Your task to perform on an android device: What's on my calendar today? Image 0: 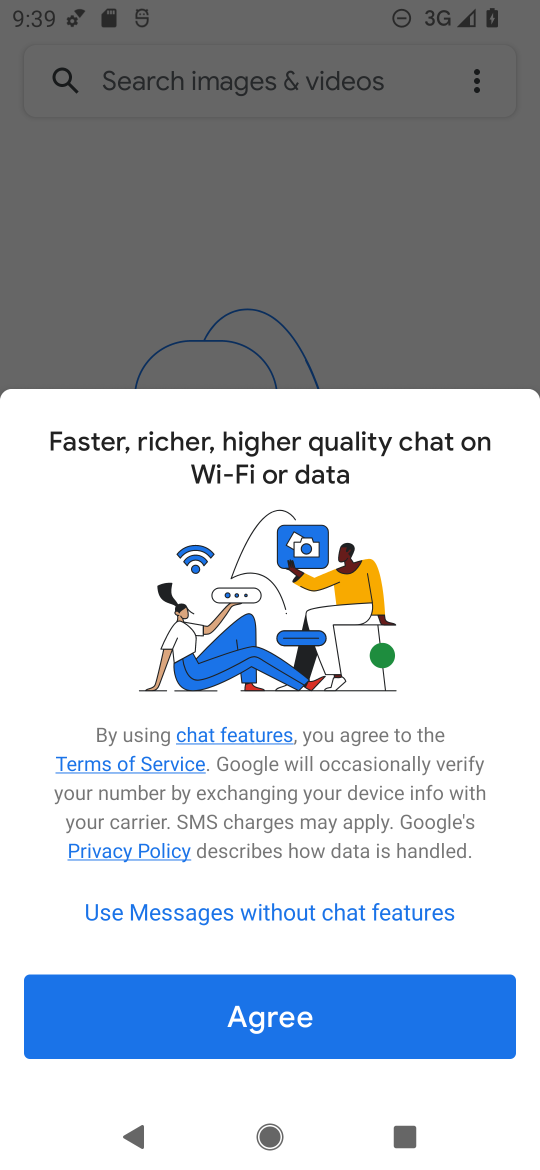
Step 0: press home button
Your task to perform on an android device: What's on my calendar today? Image 1: 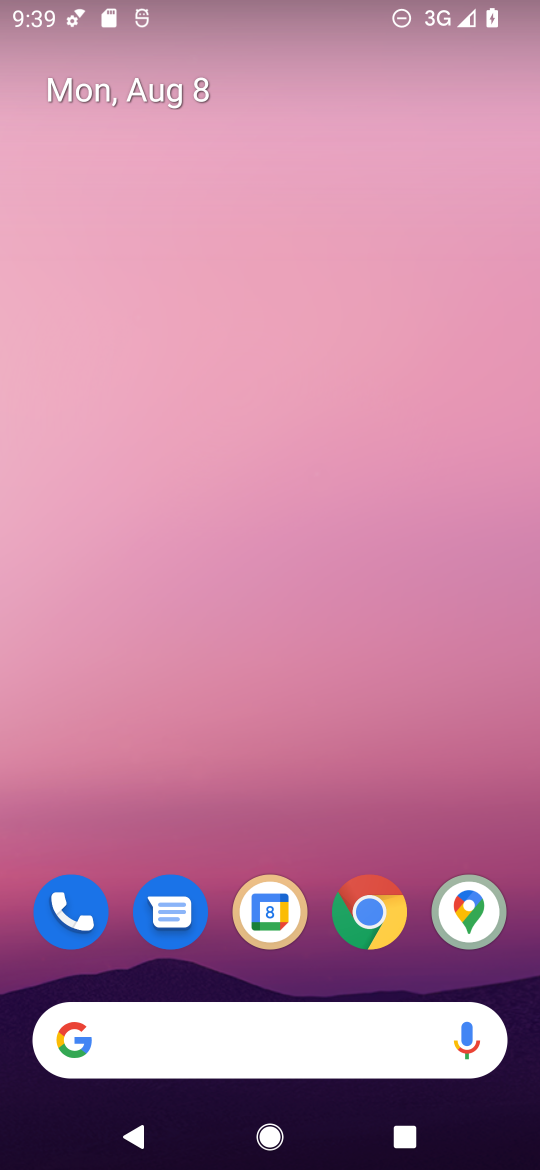
Step 1: drag from (535, 1131) to (464, 11)
Your task to perform on an android device: What's on my calendar today? Image 2: 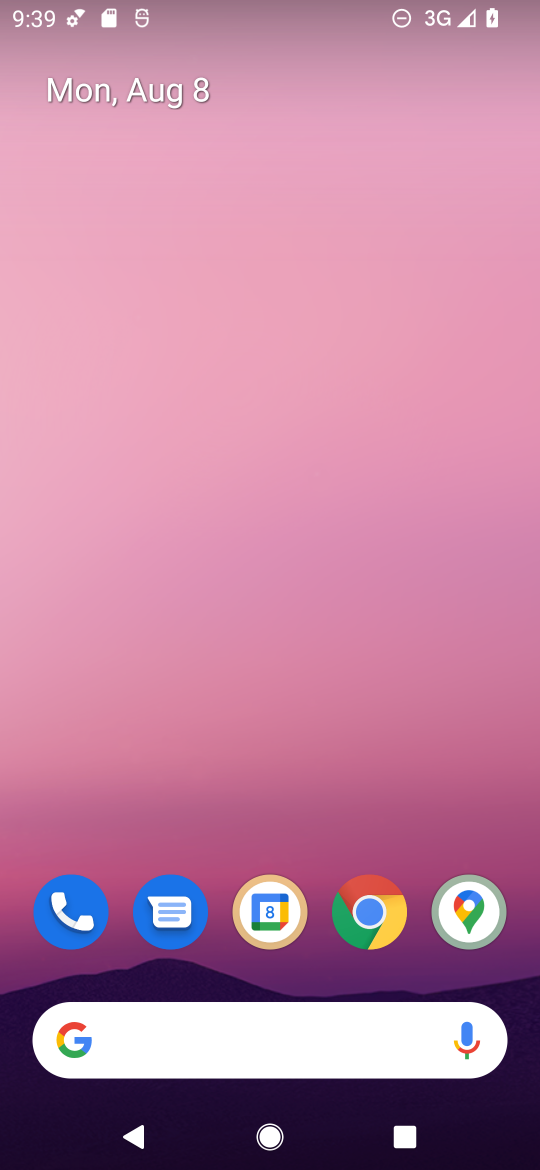
Step 2: drag from (480, 993) to (404, 120)
Your task to perform on an android device: What's on my calendar today? Image 3: 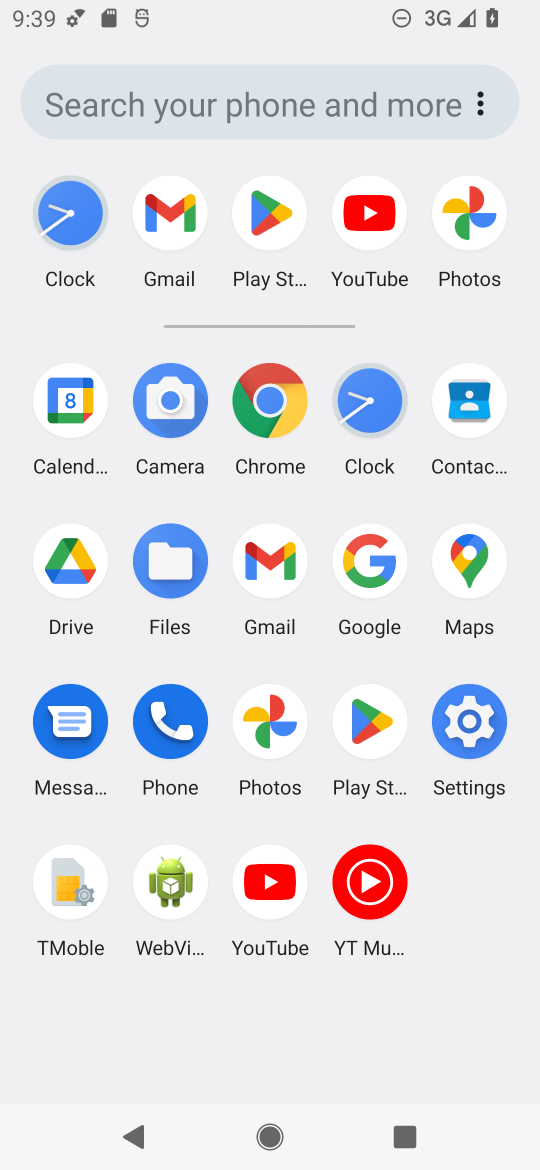
Step 3: click (73, 414)
Your task to perform on an android device: What's on my calendar today? Image 4: 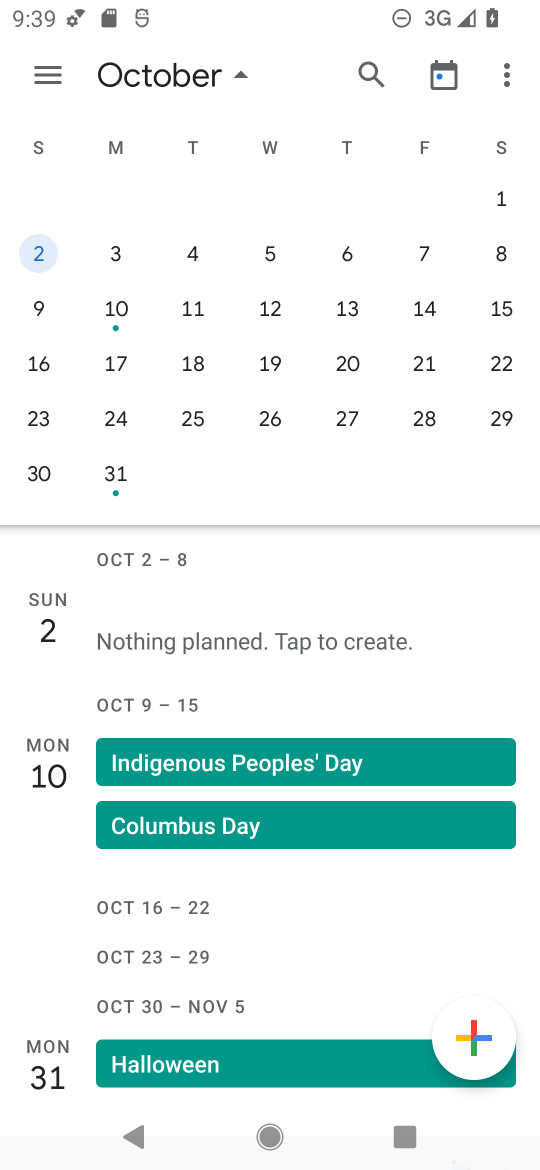
Step 4: task complete